Your task to perform on an android device: open app "Pluto TV - Live TV and Movies" Image 0: 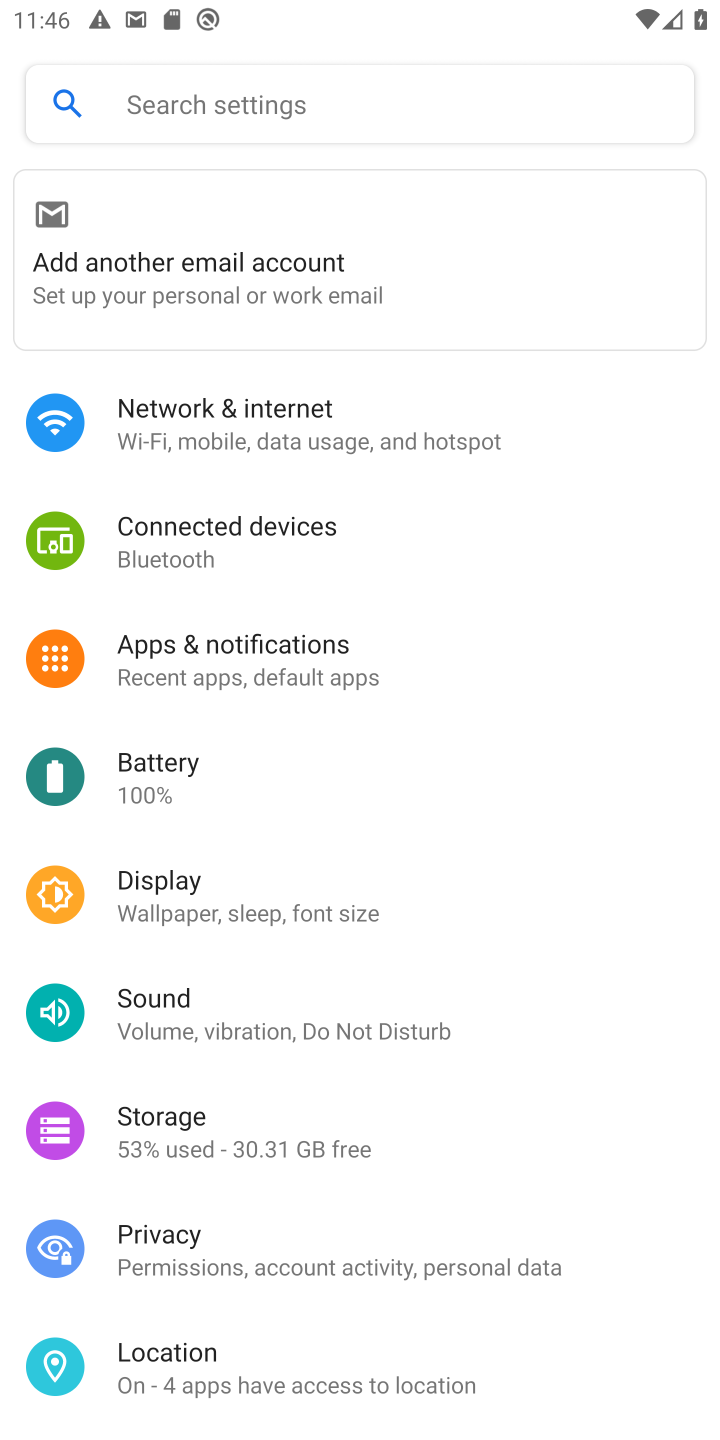
Step 0: press home button
Your task to perform on an android device: open app "Pluto TV - Live TV and Movies" Image 1: 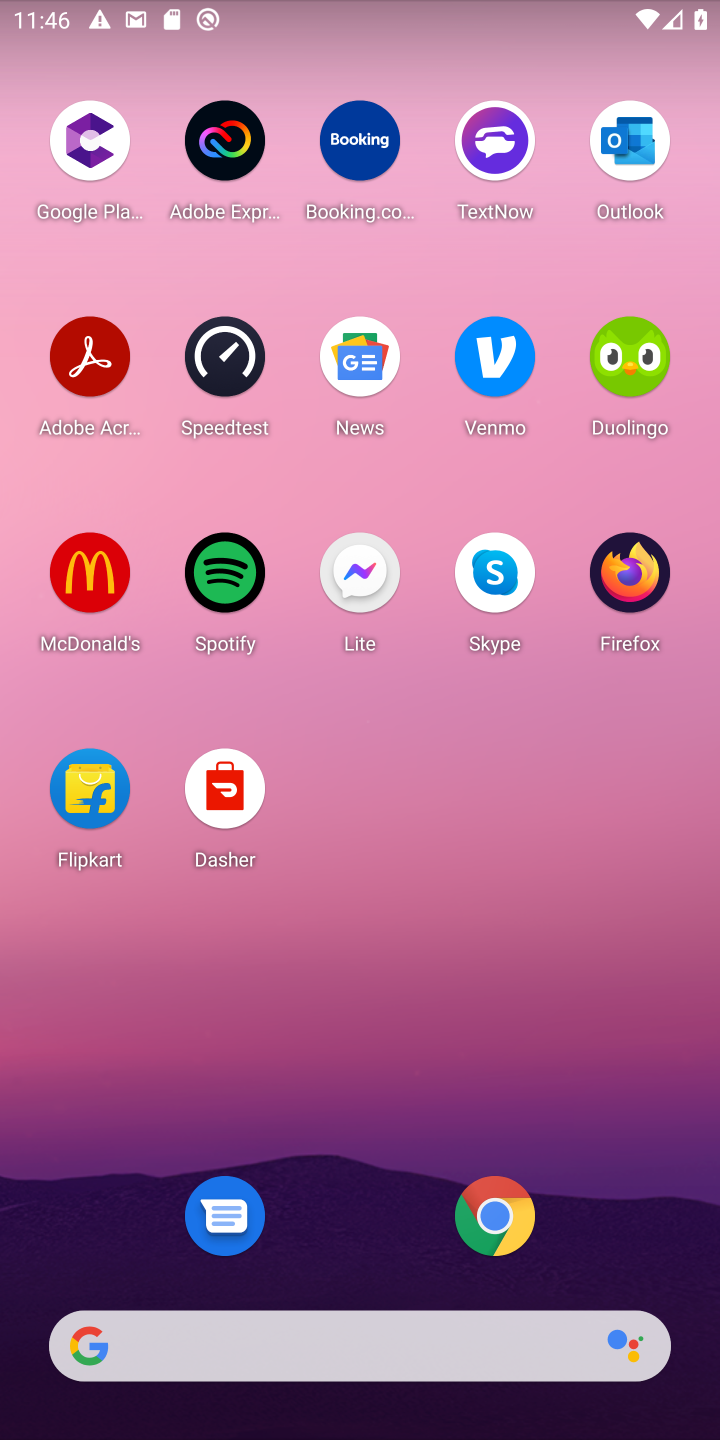
Step 1: drag from (416, 1332) to (474, 133)
Your task to perform on an android device: open app "Pluto TV - Live TV and Movies" Image 2: 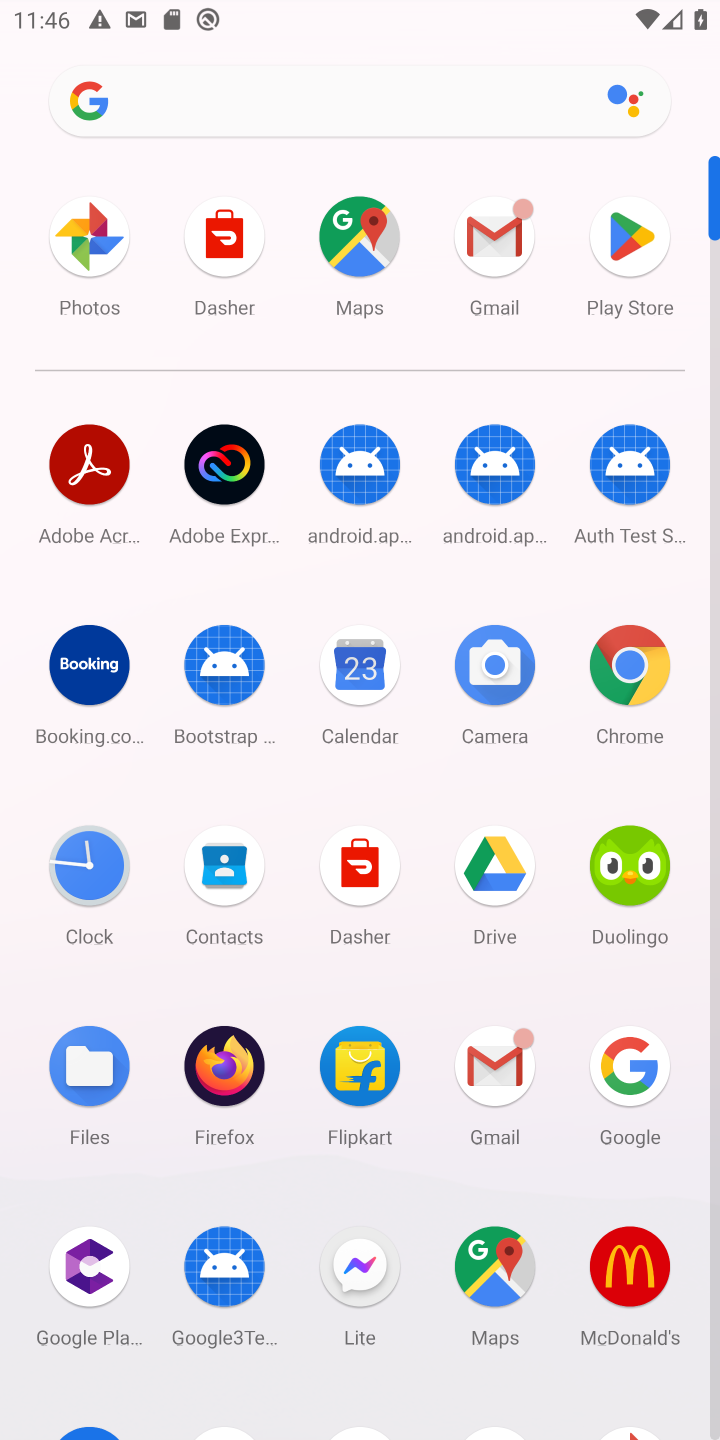
Step 2: click (630, 248)
Your task to perform on an android device: open app "Pluto TV - Live TV and Movies" Image 3: 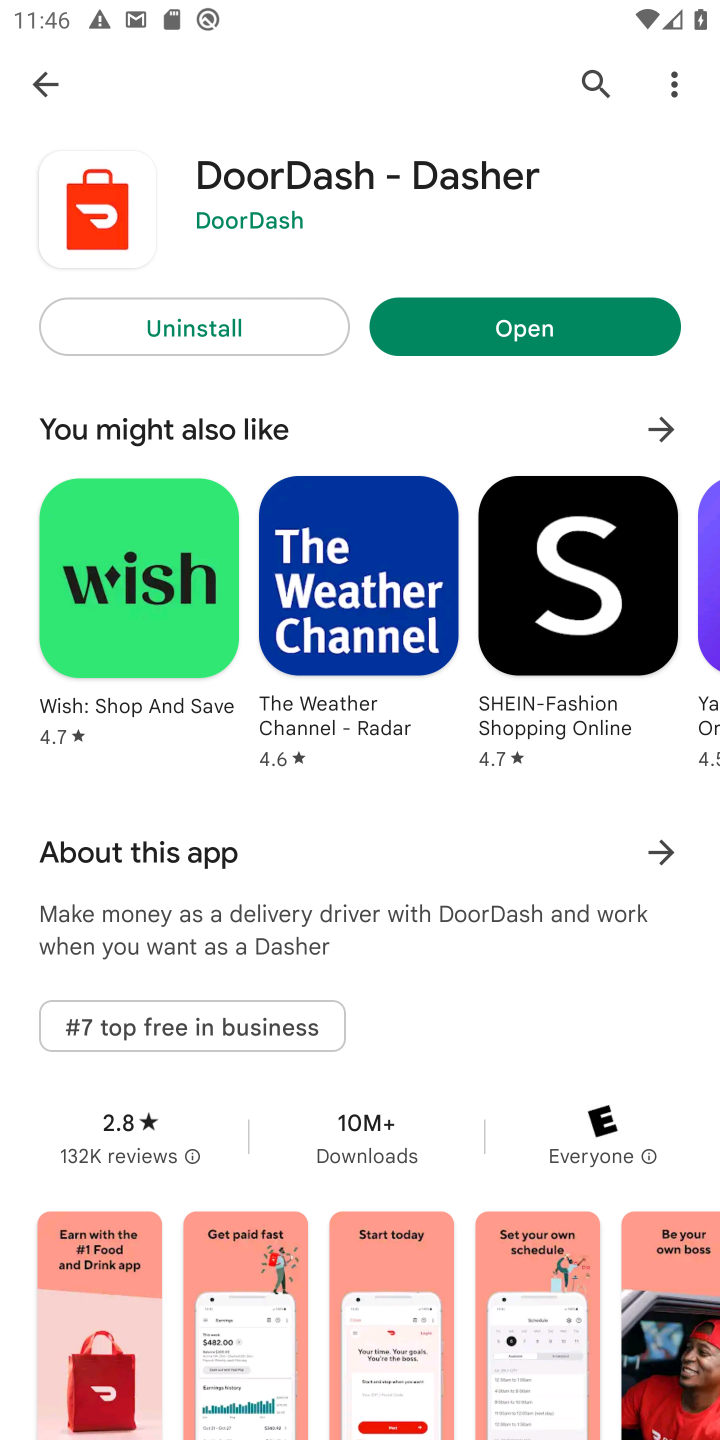
Step 3: press back button
Your task to perform on an android device: open app "Pluto TV - Live TV and Movies" Image 4: 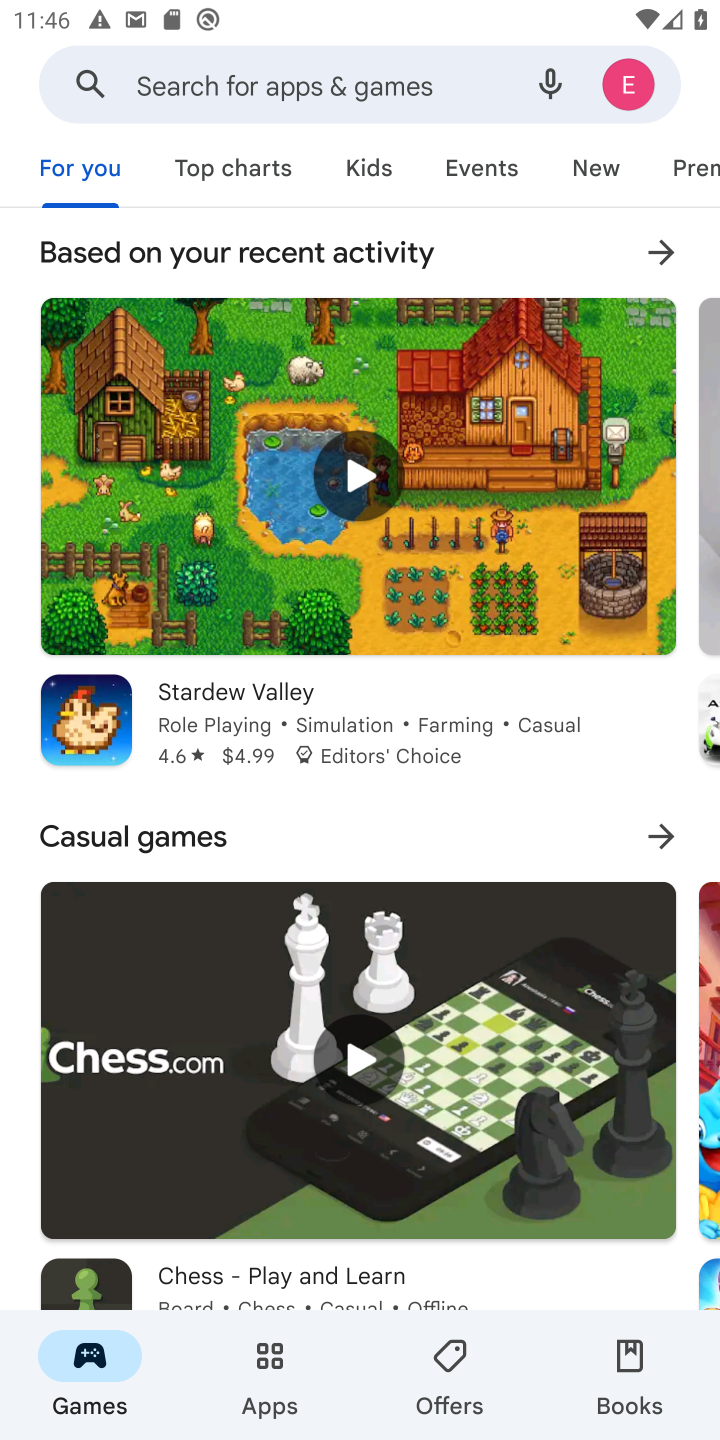
Step 4: click (288, 73)
Your task to perform on an android device: open app "Pluto TV - Live TV and Movies" Image 5: 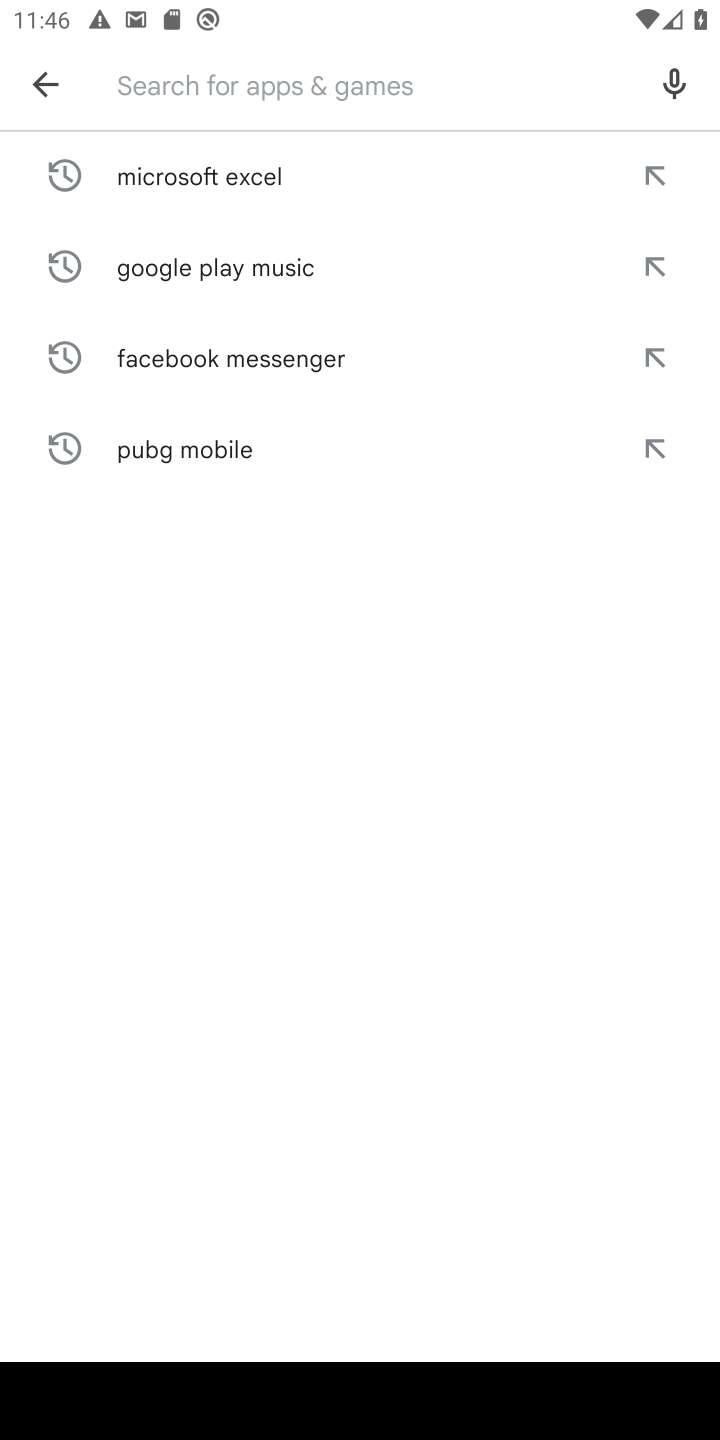
Step 5: type "Pluto TV - Live TV and Movies"
Your task to perform on an android device: open app "Pluto TV - Live TV and Movies" Image 6: 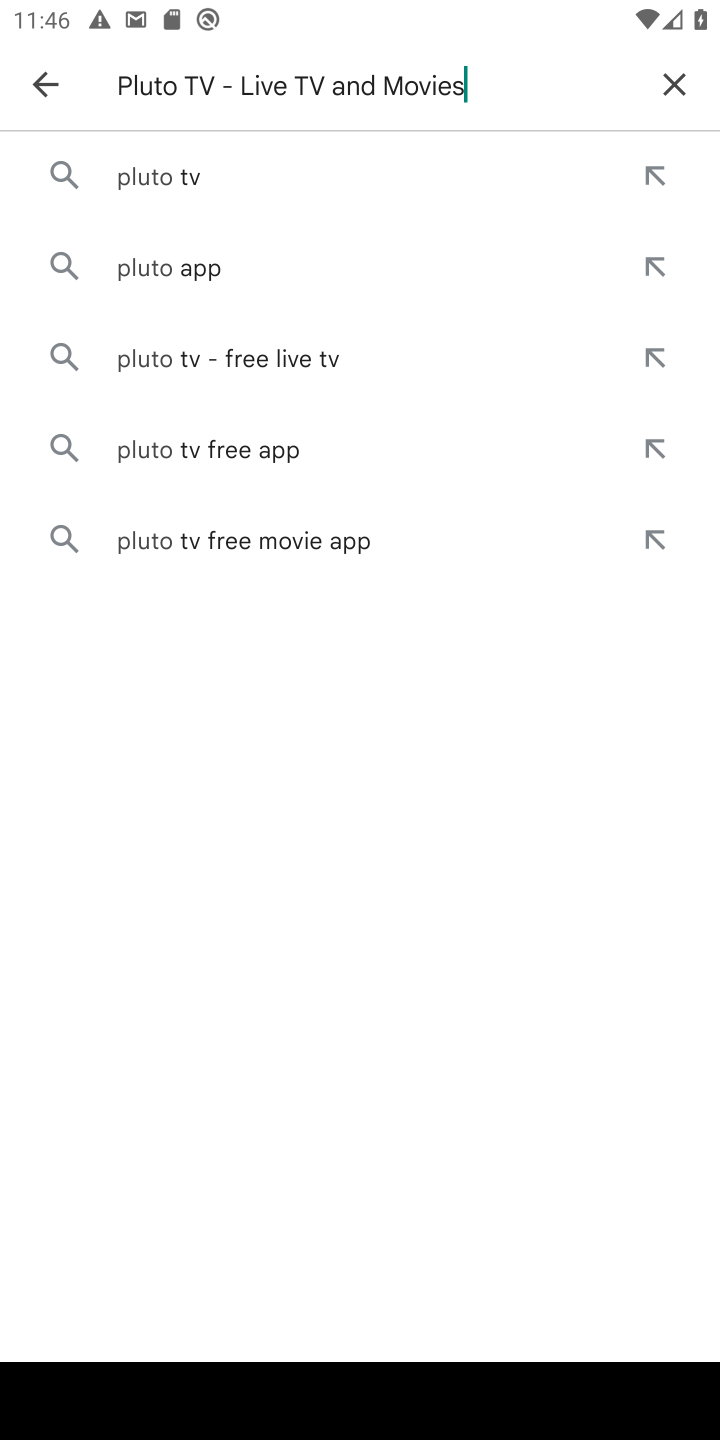
Step 6: type ""
Your task to perform on an android device: open app "Pluto TV - Live TV and Movies" Image 7: 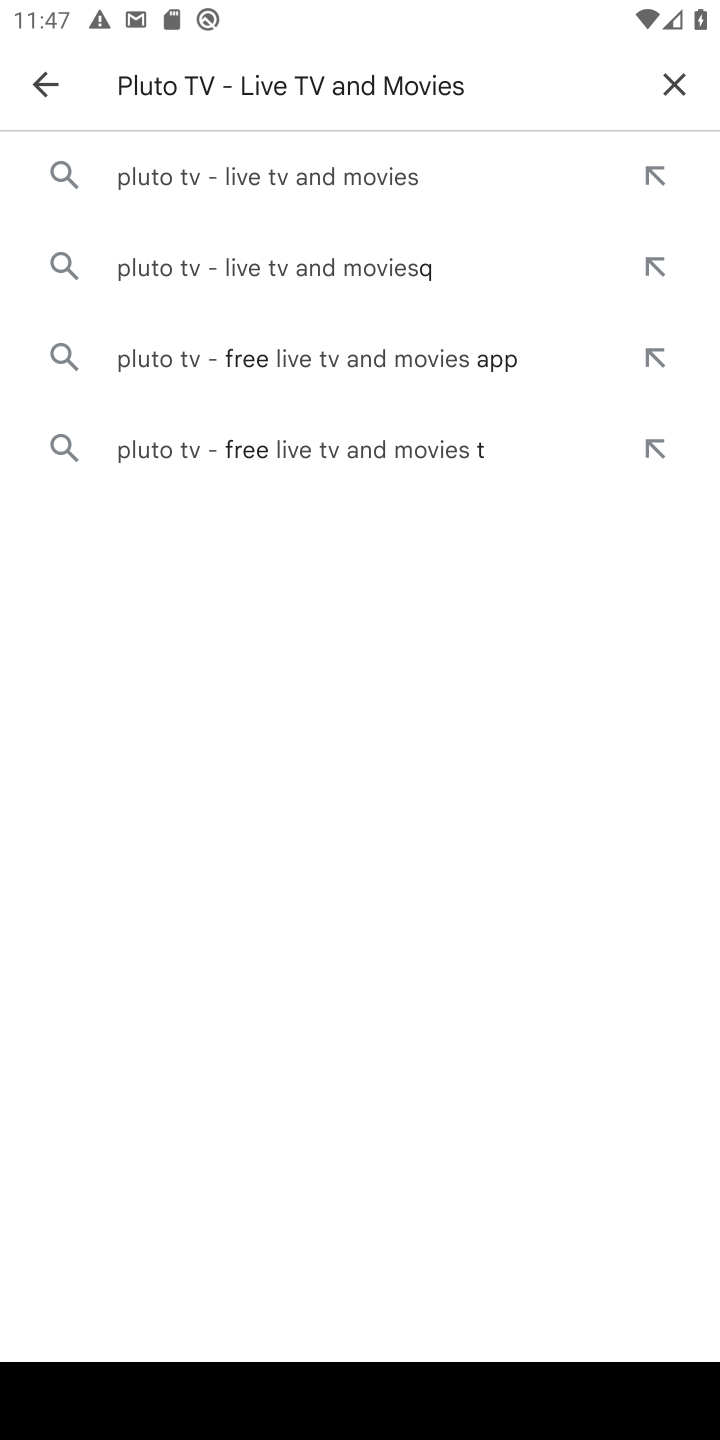
Step 7: click (278, 167)
Your task to perform on an android device: open app "Pluto TV - Live TV and Movies" Image 8: 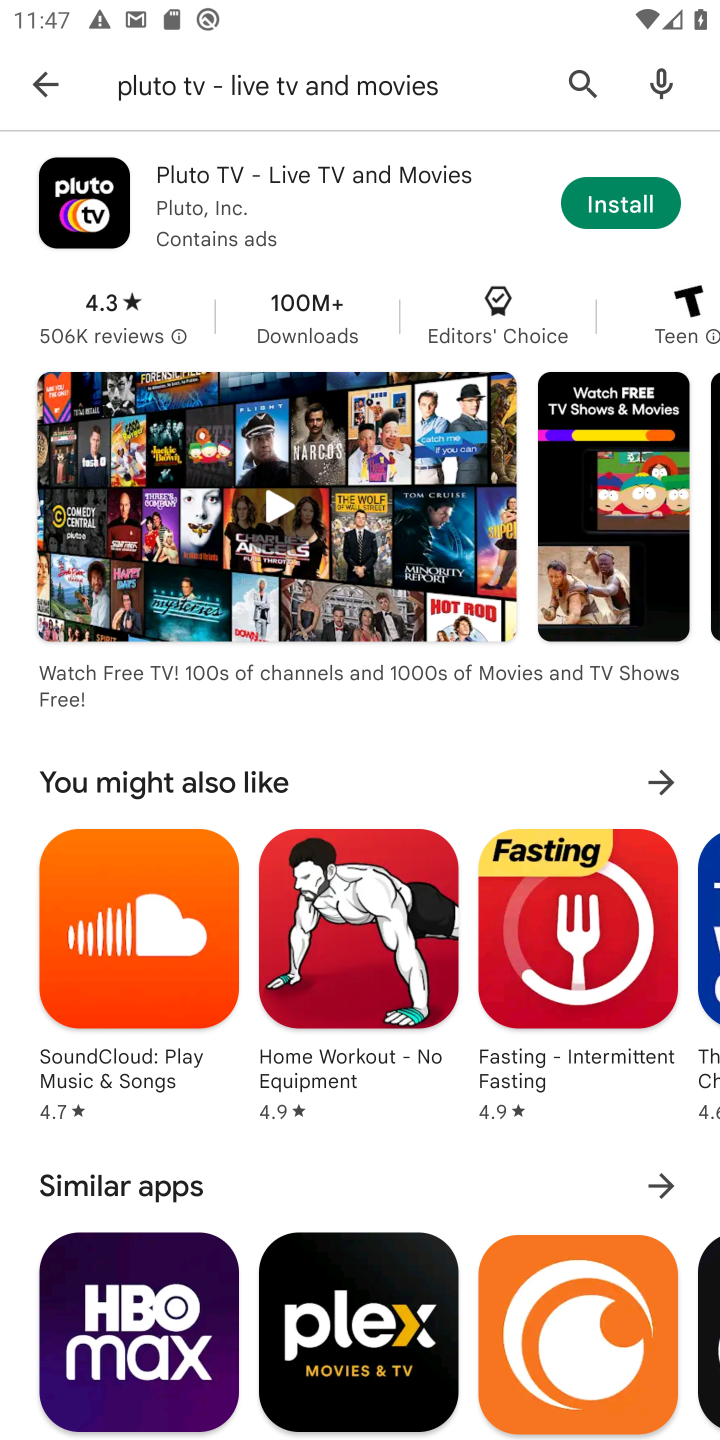
Step 8: task complete